Your task to perform on an android device: Open Google Chrome and open the bookmarks view Image 0: 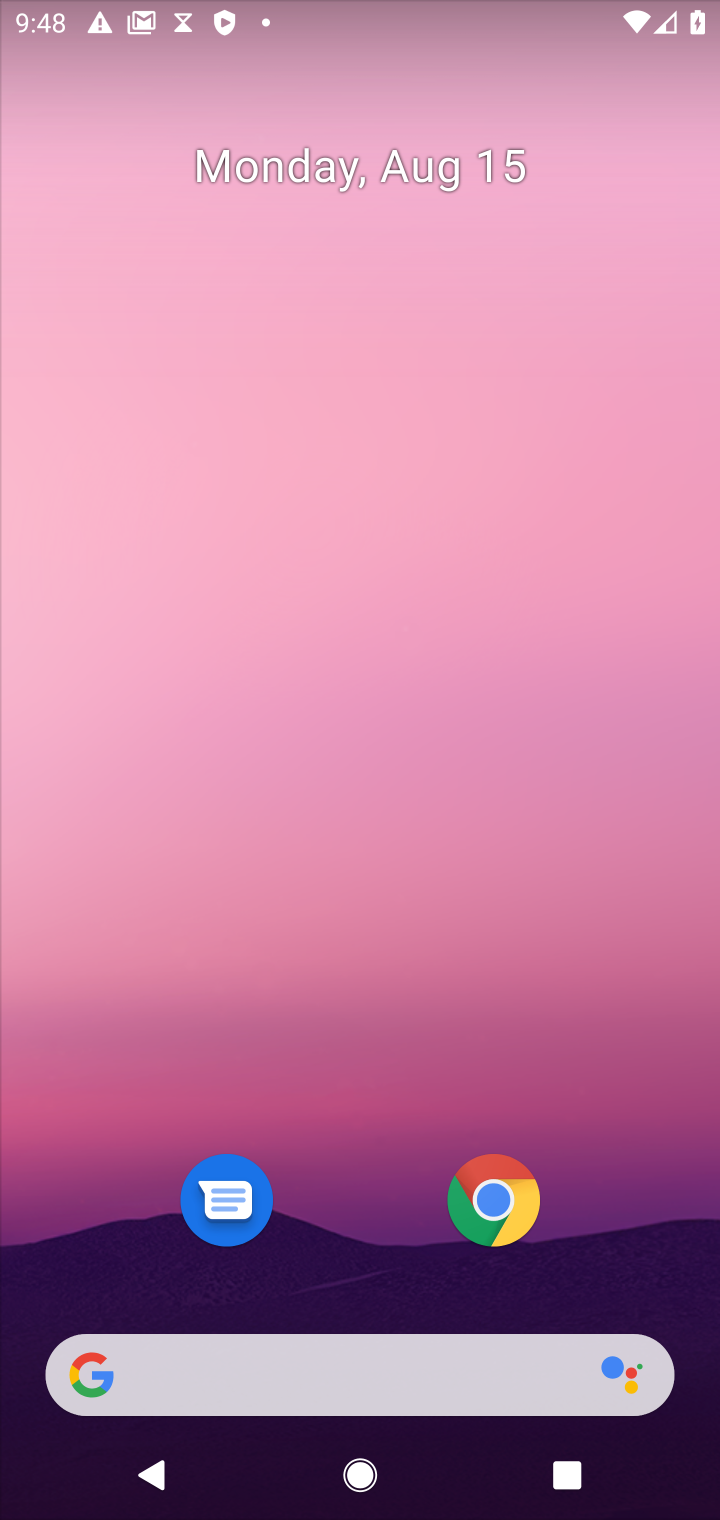
Step 0: click (523, 1197)
Your task to perform on an android device: Open Google Chrome and open the bookmarks view Image 1: 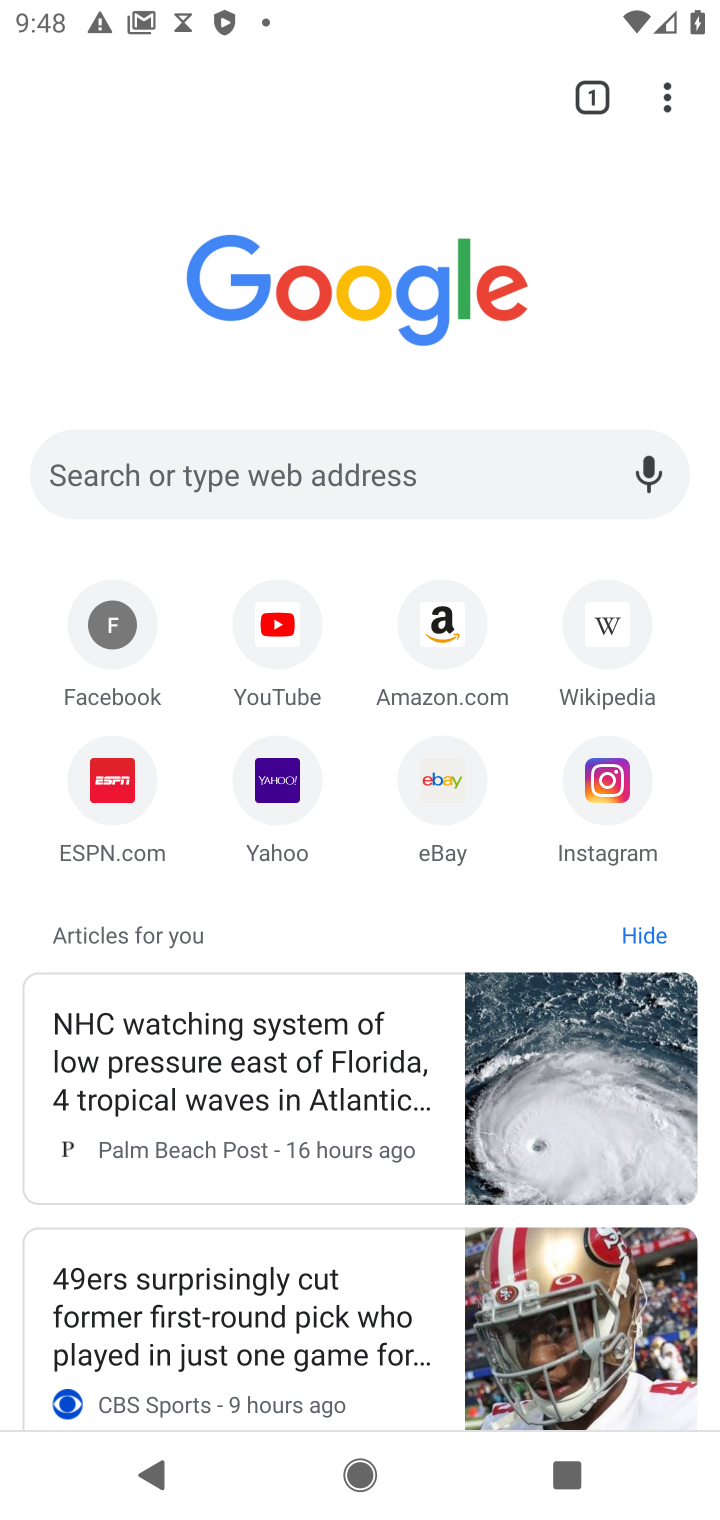
Step 1: click (660, 80)
Your task to perform on an android device: Open Google Chrome and open the bookmarks view Image 2: 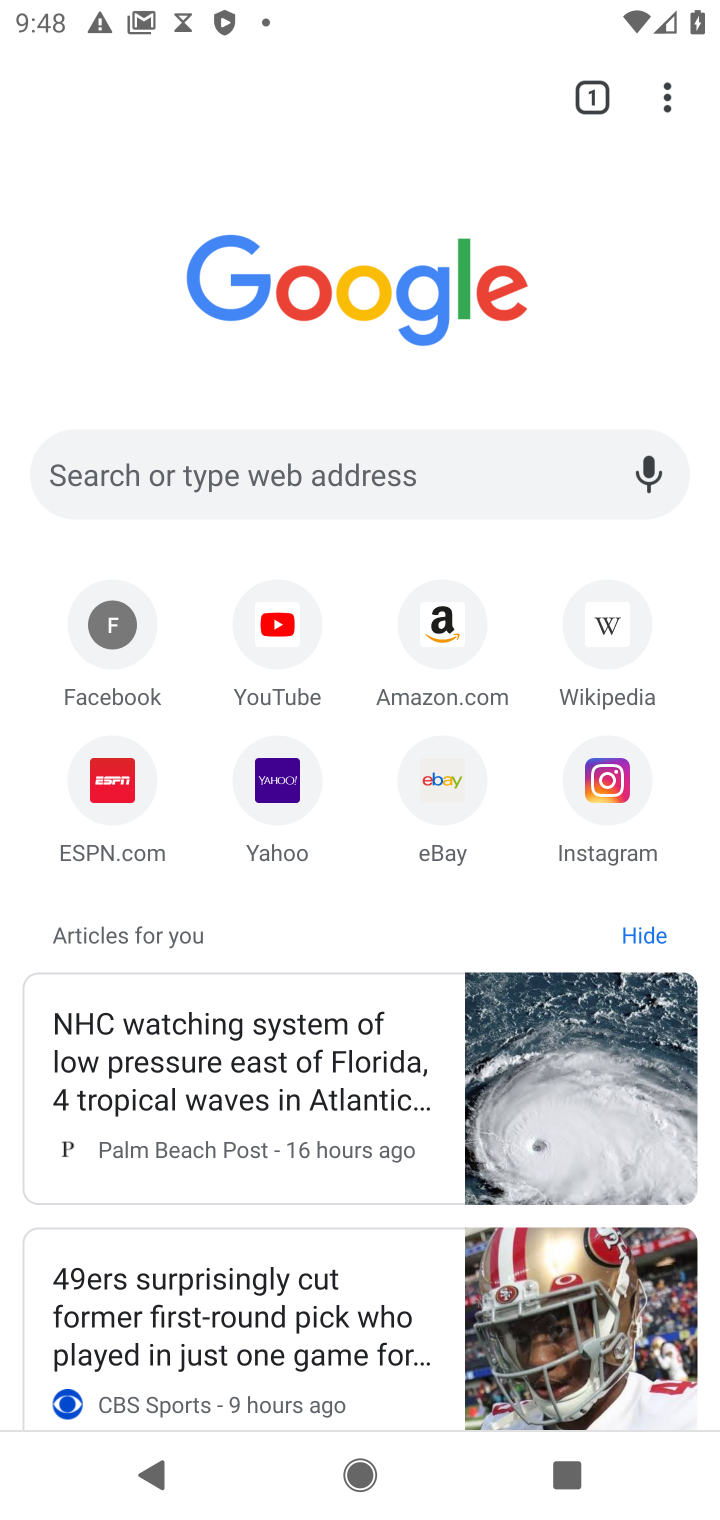
Step 2: click (655, 95)
Your task to perform on an android device: Open Google Chrome and open the bookmarks view Image 3: 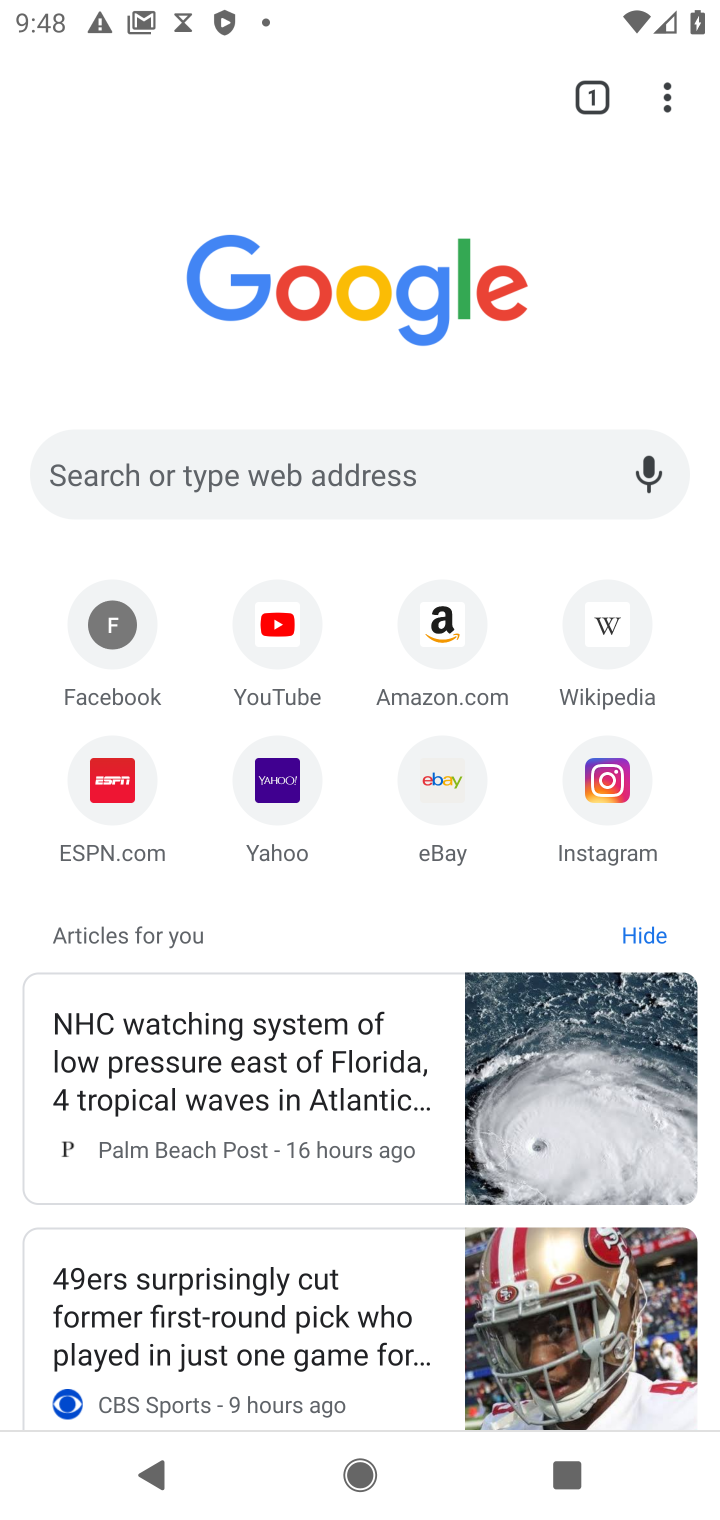
Step 3: click (669, 97)
Your task to perform on an android device: Open Google Chrome and open the bookmarks view Image 4: 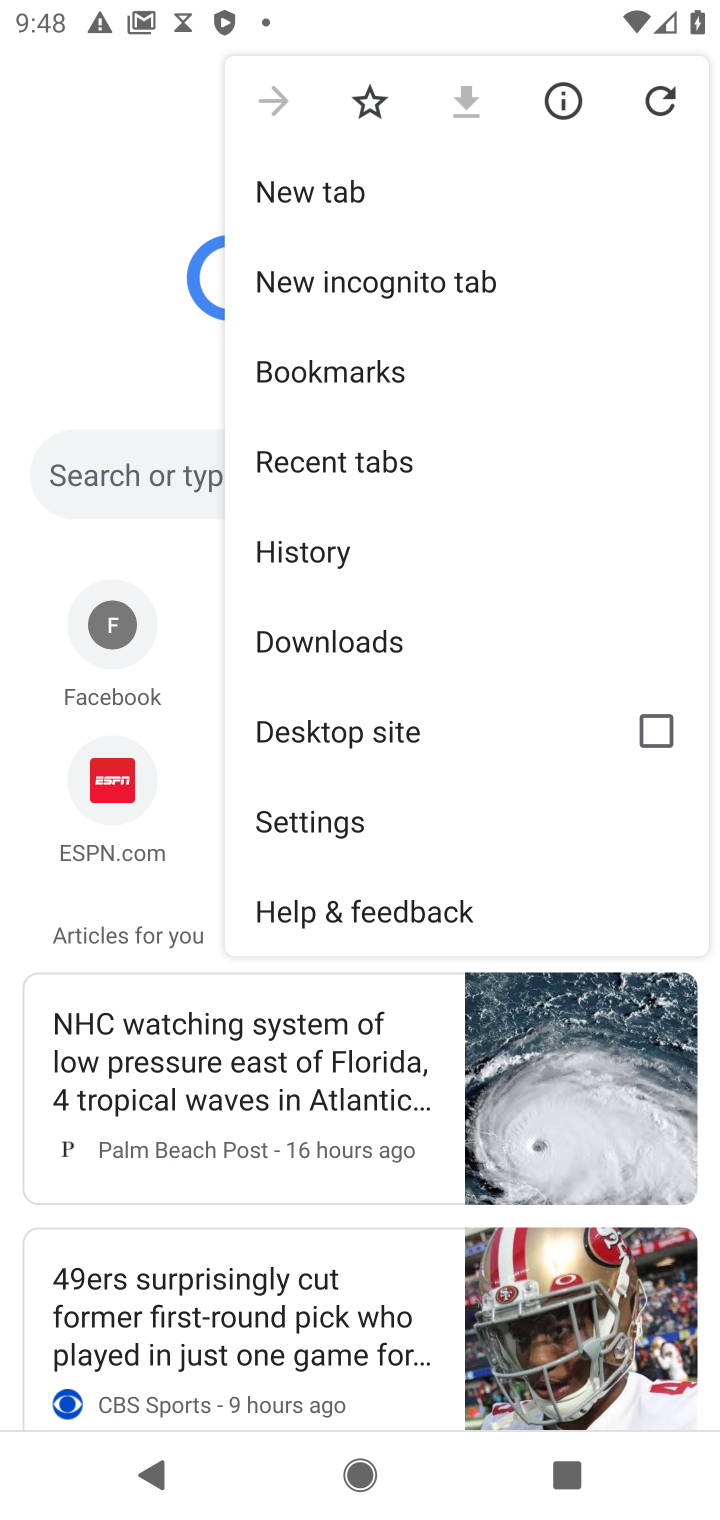
Step 4: drag from (672, 101) to (392, 368)
Your task to perform on an android device: Open Google Chrome and open the bookmarks view Image 5: 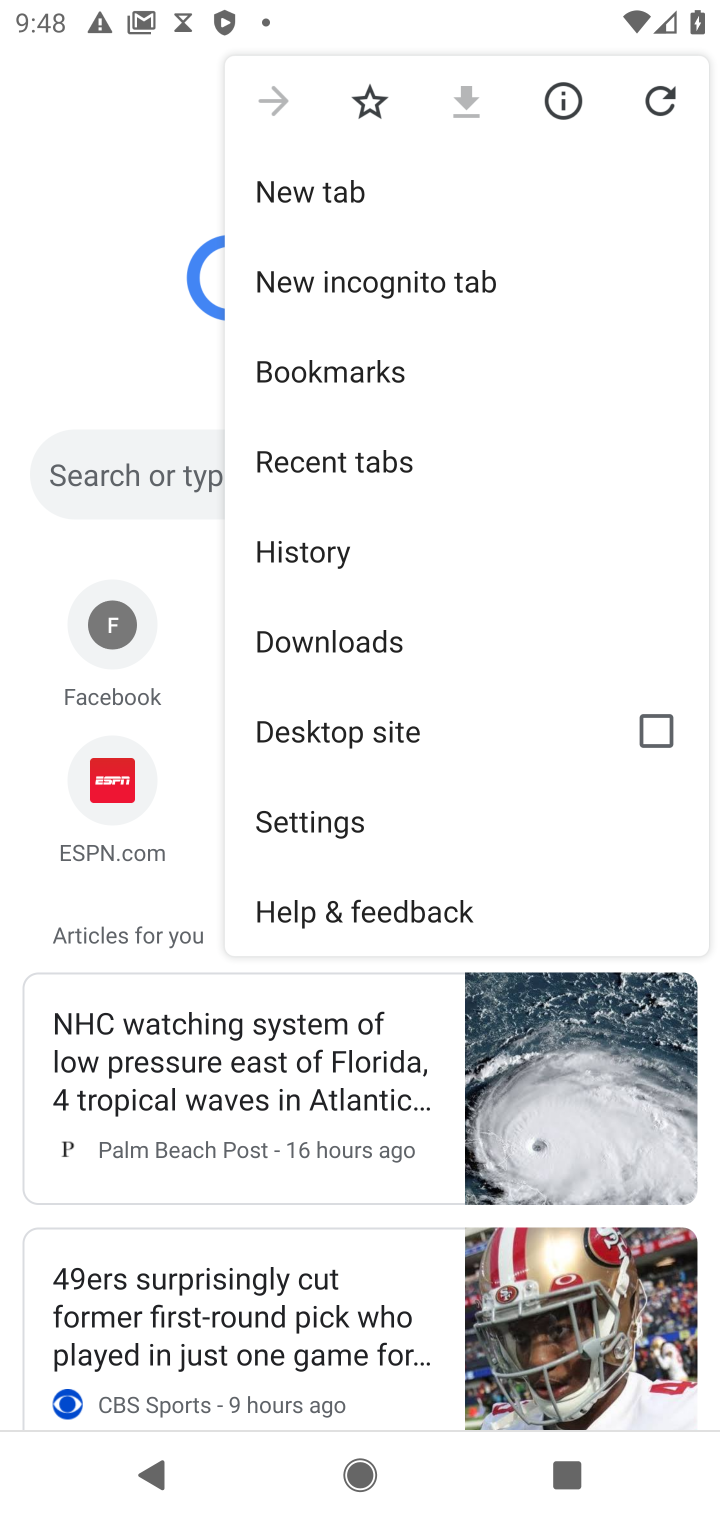
Step 5: click (383, 363)
Your task to perform on an android device: Open Google Chrome and open the bookmarks view Image 6: 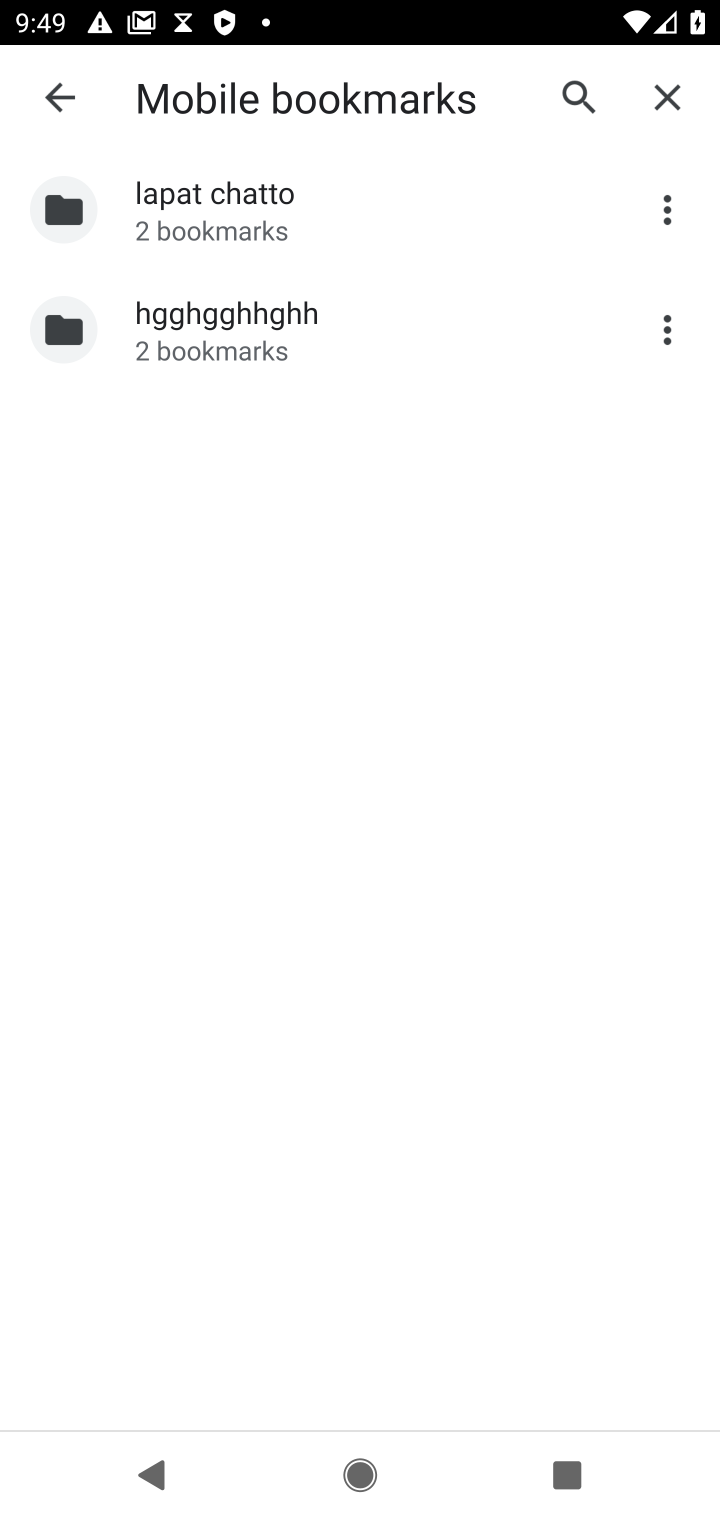
Step 6: task complete